Your task to perform on an android device: Go to Maps Image 0: 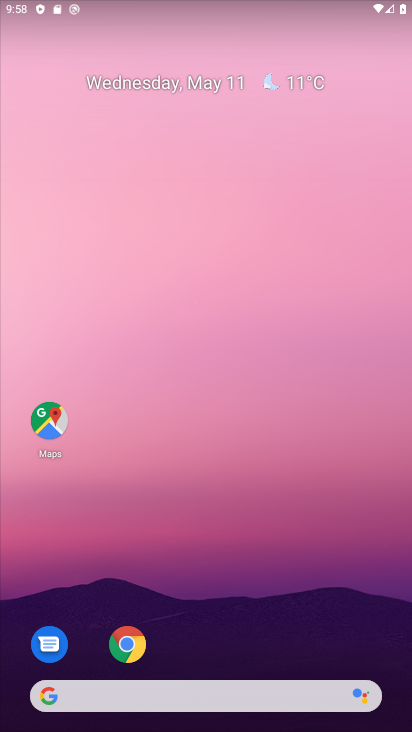
Step 0: click (39, 426)
Your task to perform on an android device: Go to Maps Image 1: 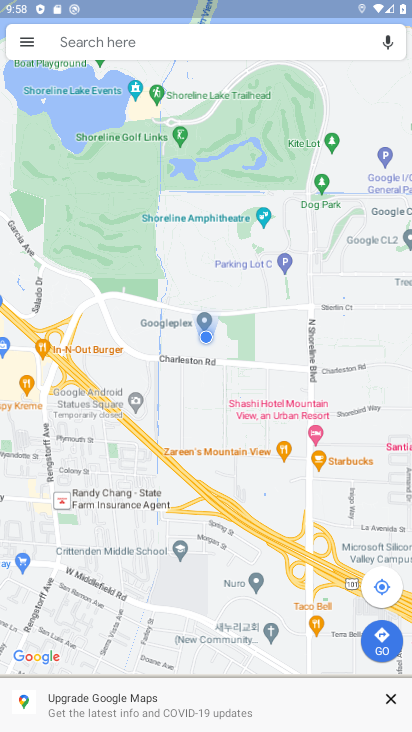
Step 1: task complete